Your task to perform on an android device: read, delete, or share a saved page in the chrome app Image 0: 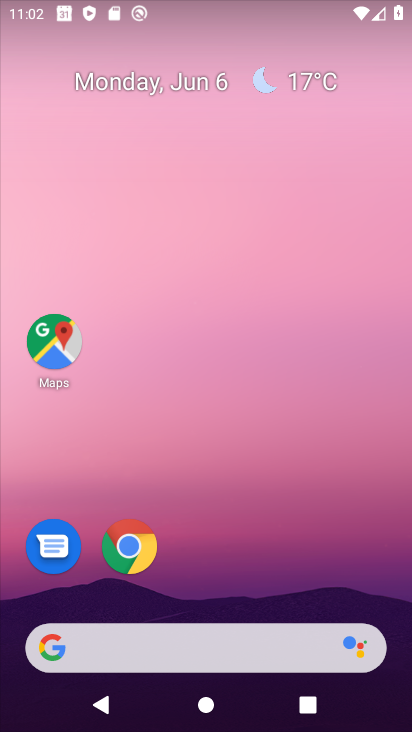
Step 0: click (132, 543)
Your task to perform on an android device: read, delete, or share a saved page in the chrome app Image 1: 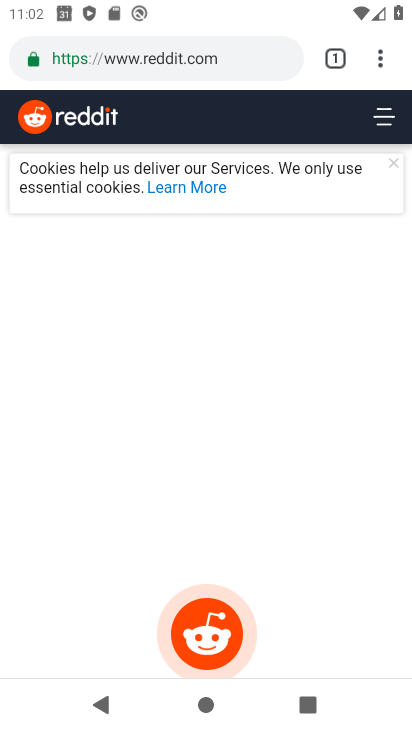
Step 1: drag from (378, 55) to (205, 388)
Your task to perform on an android device: read, delete, or share a saved page in the chrome app Image 2: 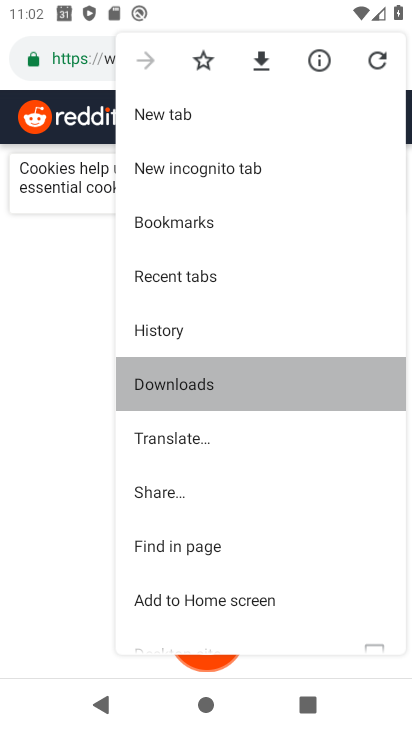
Step 2: click (205, 388)
Your task to perform on an android device: read, delete, or share a saved page in the chrome app Image 3: 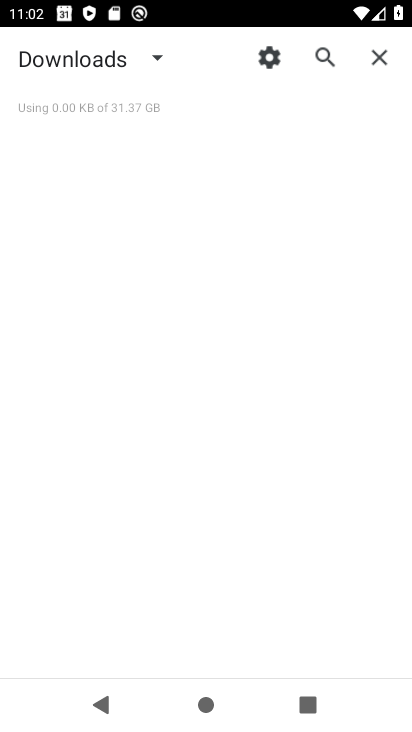
Step 3: task complete